Your task to perform on an android device: Open Chrome and go to settings Image 0: 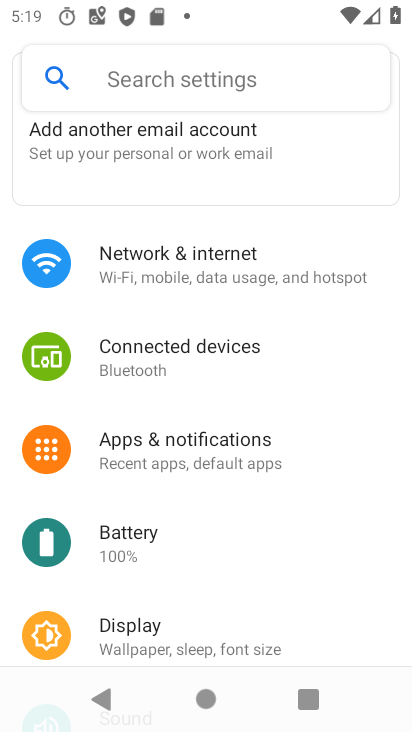
Step 0: press home button
Your task to perform on an android device: Open Chrome and go to settings Image 1: 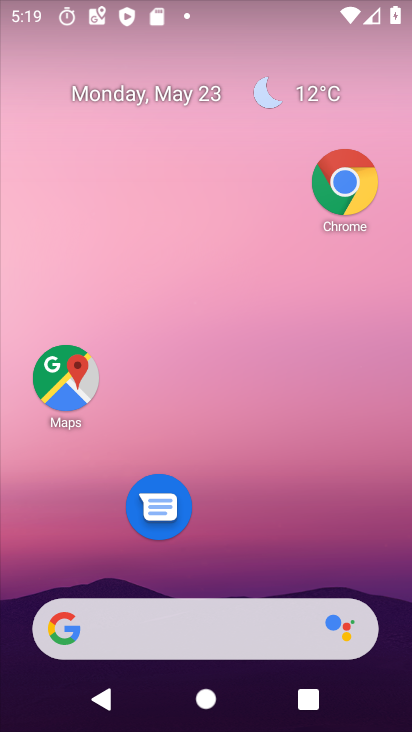
Step 1: click (348, 190)
Your task to perform on an android device: Open Chrome and go to settings Image 2: 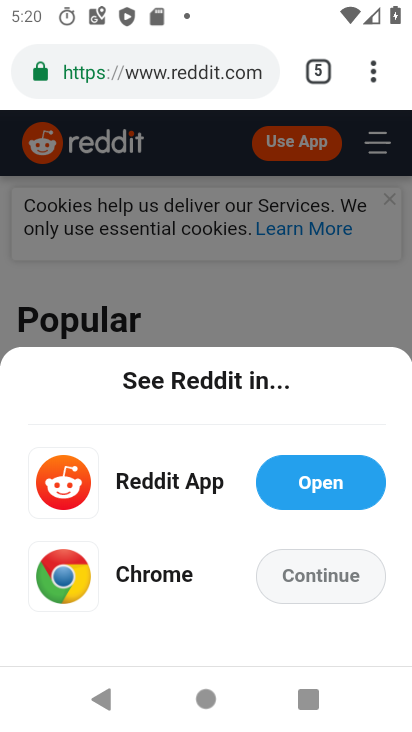
Step 2: click (382, 70)
Your task to perform on an android device: Open Chrome and go to settings Image 3: 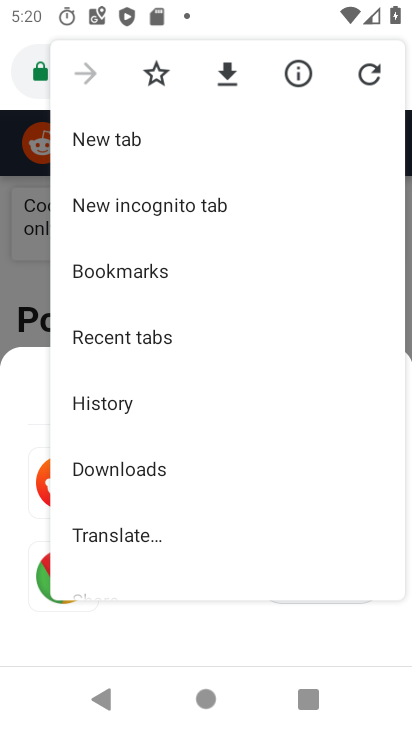
Step 3: drag from (129, 492) to (261, 136)
Your task to perform on an android device: Open Chrome and go to settings Image 4: 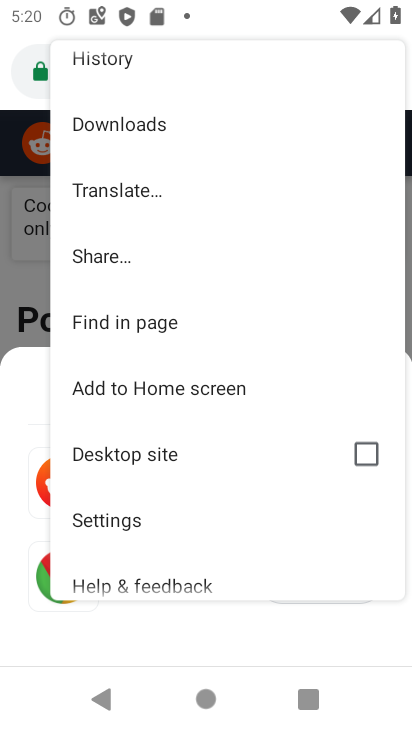
Step 4: click (132, 542)
Your task to perform on an android device: Open Chrome and go to settings Image 5: 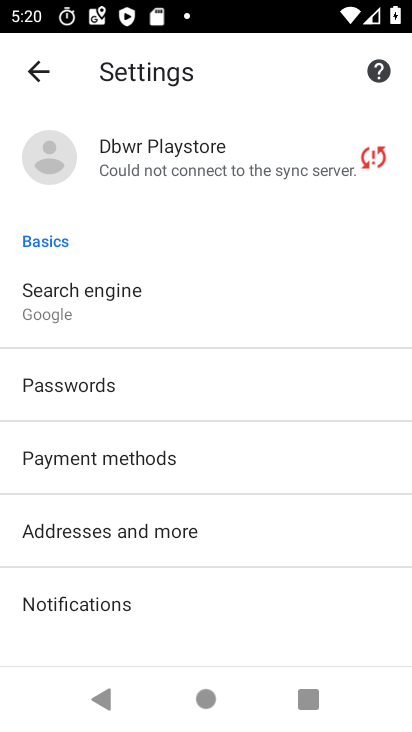
Step 5: task complete